Your task to perform on an android device: delete browsing data in the chrome app Image 0: 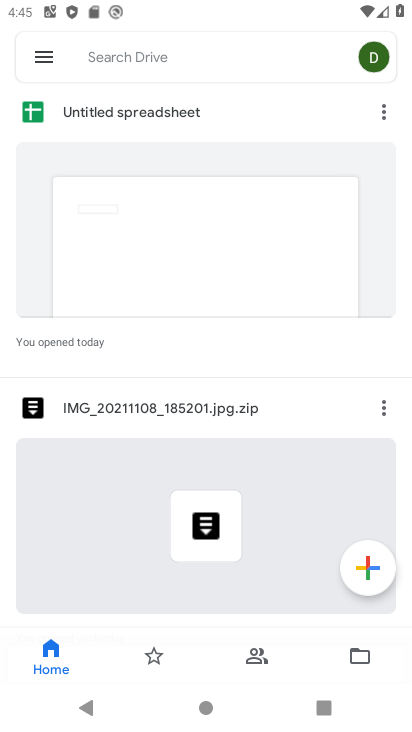
Step 0: press back button
Your task to perform on an android device: delete browsing data in the chrome app Image 1: 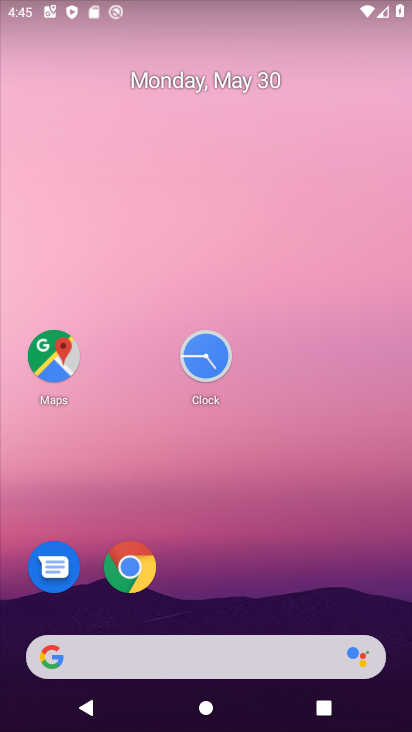
Step 1: drag from (259, 657) to (405, 231)
Your task to perform on an android device: delete browsing data in the chrome app Image 2: 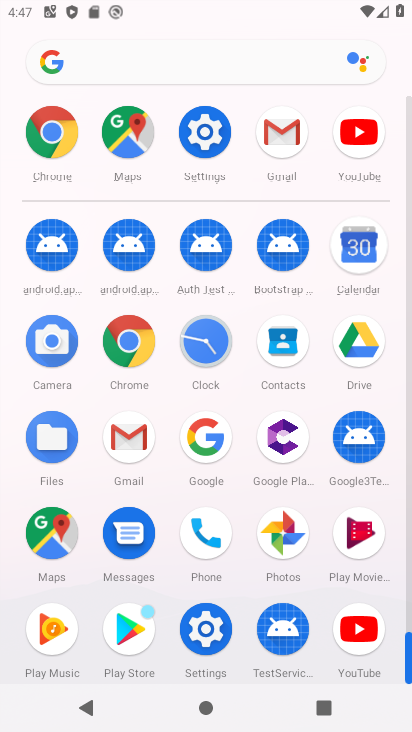
Step 2: click (125, 340)
Your task to perform on an android device: delete browsing data in the chrome app Image 3: 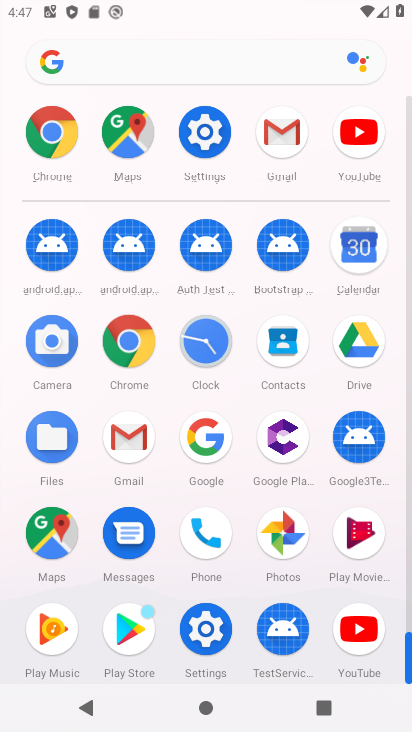
Step 3: click (125, 340)
Your task to perform on an android device: delete browsing data in the chrome app Image 4: 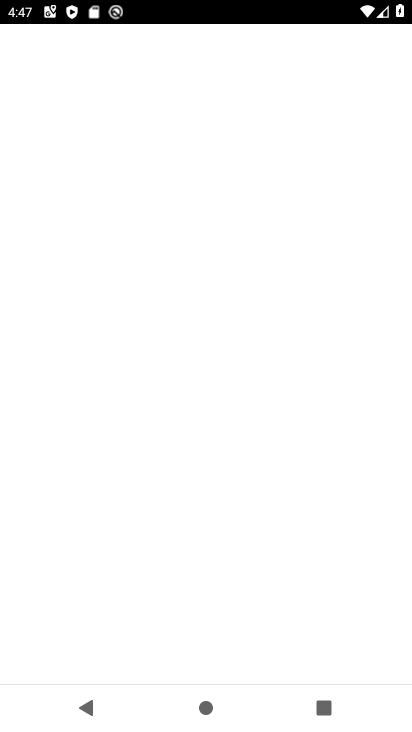
Step 4: click (125, 340)
Your task to perform on an android device: delete browsing data in the chrome app Image 5: 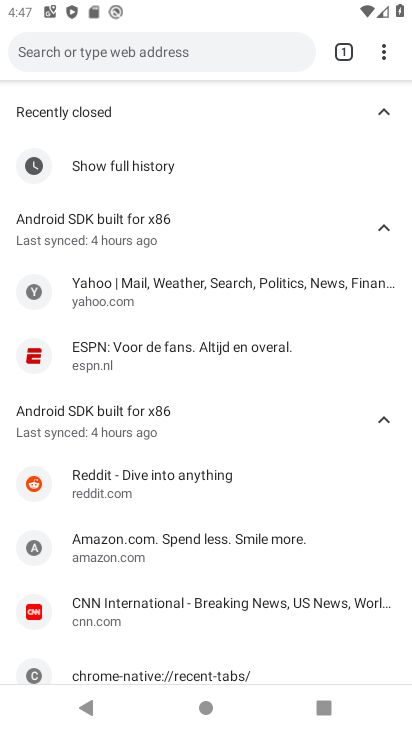
Step 5: press back button
Your task to perform on an android device: delete browsing data in the chrome app Image 6: 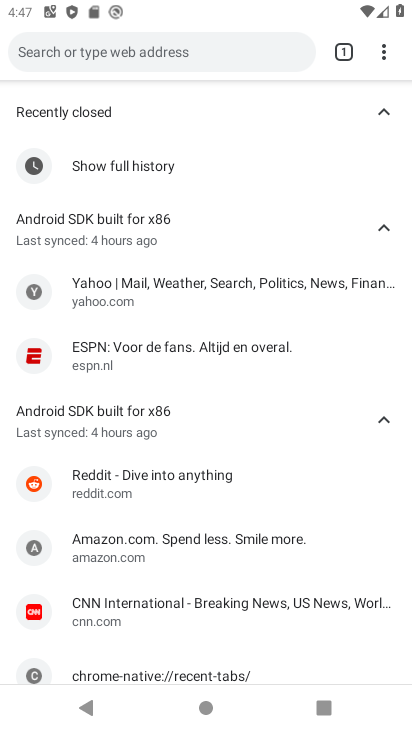
Step 6: press back button
Your task to perform on an android device: delete browsing data in the chrome app Image 7: 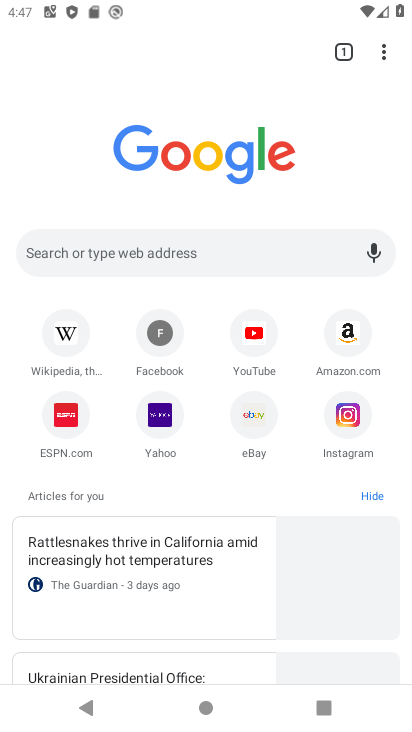
Step 7: press back button
Your task to perform on an android device: delete browsing data in the chrome app Image 8: 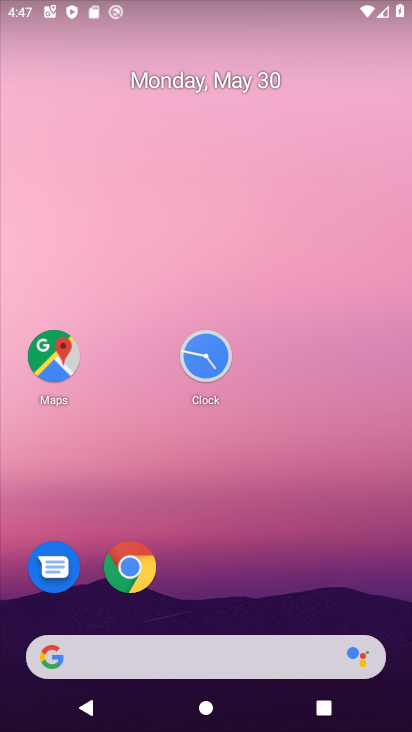
Step 8: click (385, 57)
Your task to perform on an android device: delete browsing data in the chrome app Image 9: 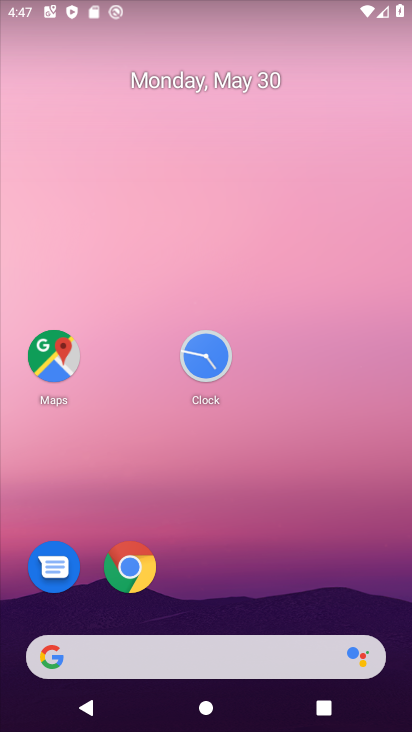
Step 9: drag from (238, 622) to (158, 29)
Your task to perform on an android device: delete browsing data in the chrome app Image 10: 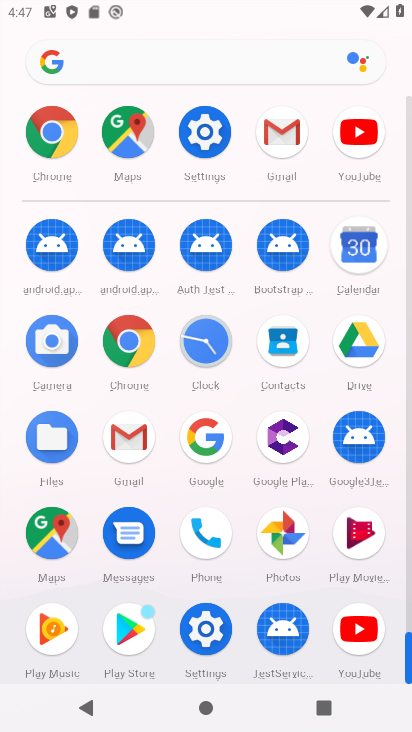
Step 10: click (48, 133)
Your task to perform on an android device: delete browsing data in the chrome app Image 11: 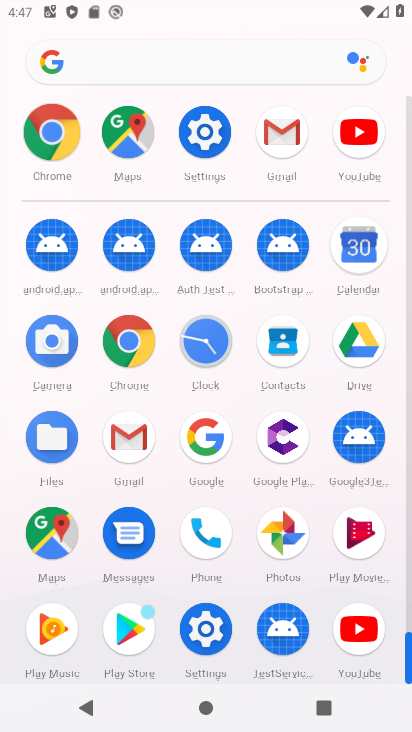
Step 11: click (48, 133)
Your task to perform on an android device: delete browsing data in the chrome app Image 12: 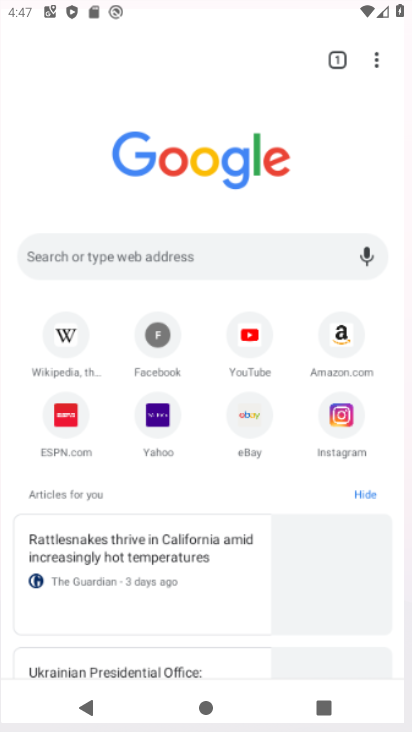
Step 12: click (48, 132)
Your task to perform on an android device: delete browsing data in the chrome app Image 13: 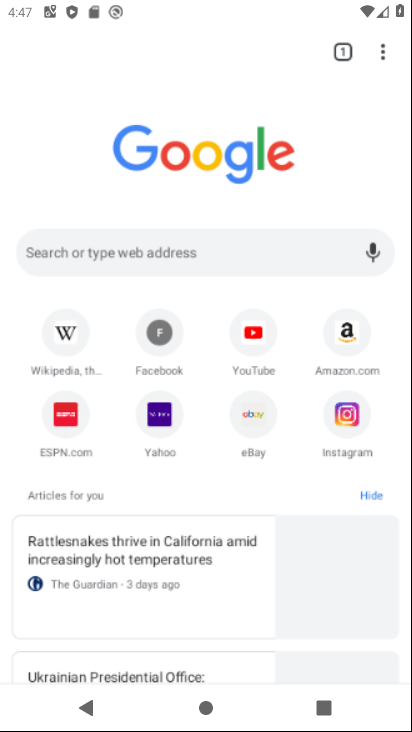
Step 13: click (48, 132)
Your task to perform on an android device: delete browsing data in the chrome app Image 14: 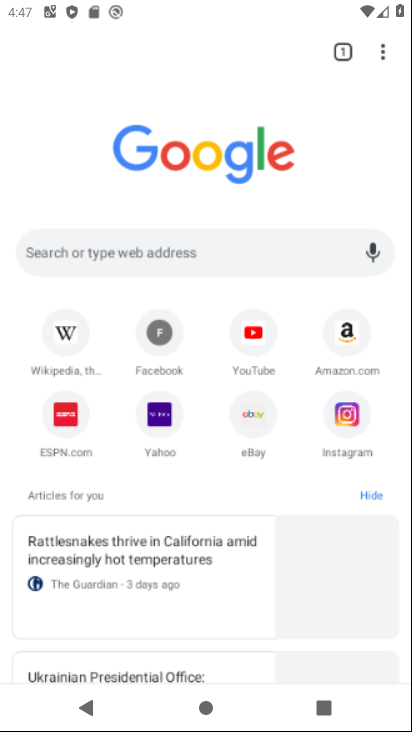
Step 14: click (48, 132)
Your task to perform on an android device: delete browsing data in the chrome app Image 15: 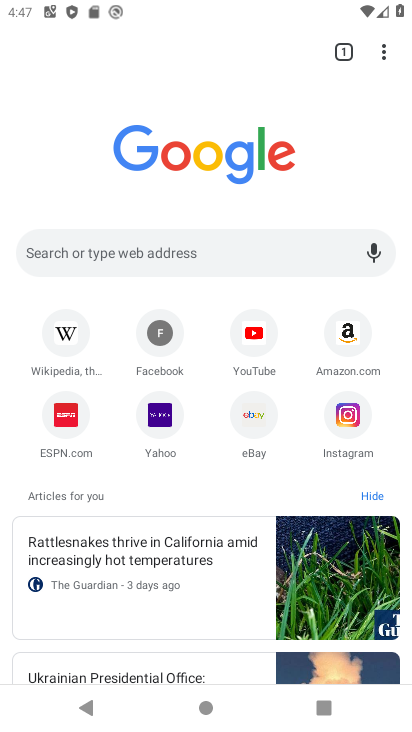
Step 15: drag from (382, 58) to (200, 247)
Your task to perform on an android device: delete browsing data in the chrome app Image 16: 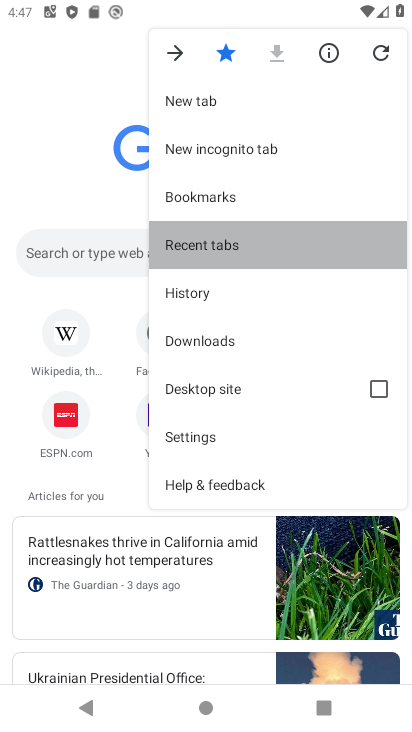
Step 16: click (200, 247)
Your task to perform on an android device: delete browsing data in the chrome app Image 17: 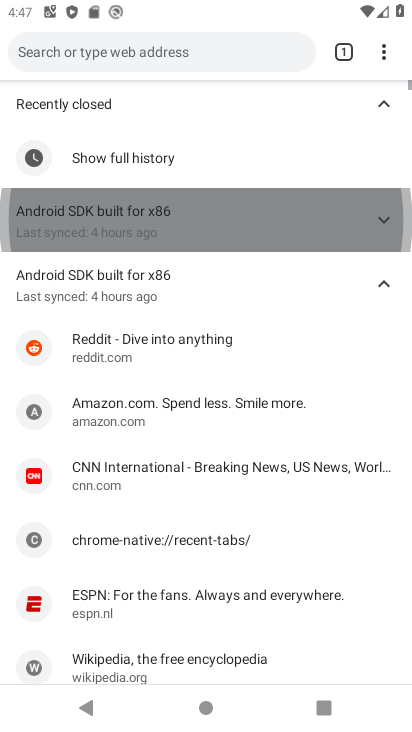
Step 17: click (200, 247)
Your task to perform on an android device: delete browsing data in the chrome app Image 18: 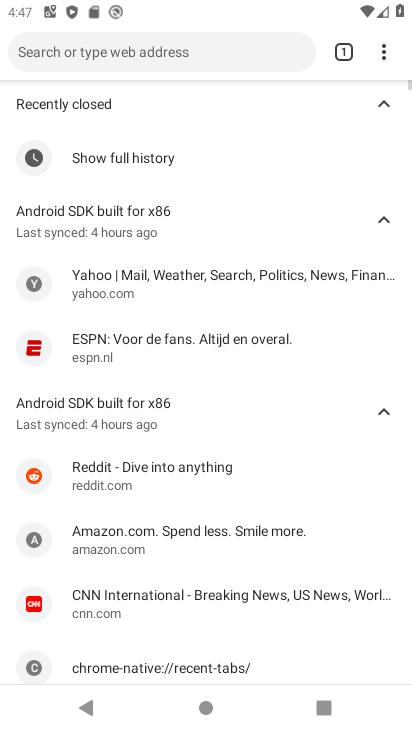
Step 18: press back button
Your task to perform on an android device: delete browsing data in the chrome app Image 19: 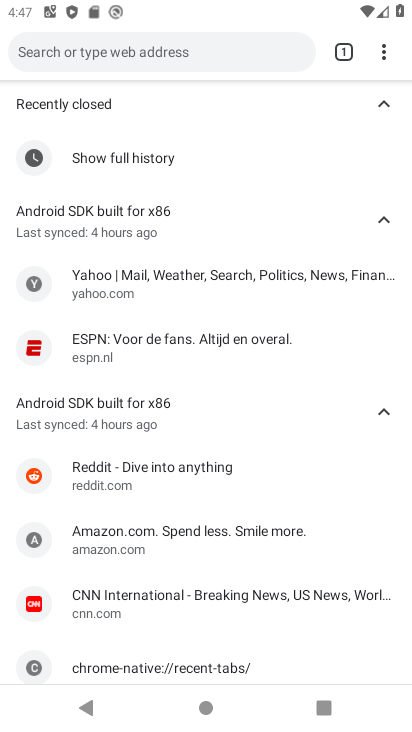
Step 19: press back button
Your task to perform on an android device: delete browsing data in the chrome app Image 20: 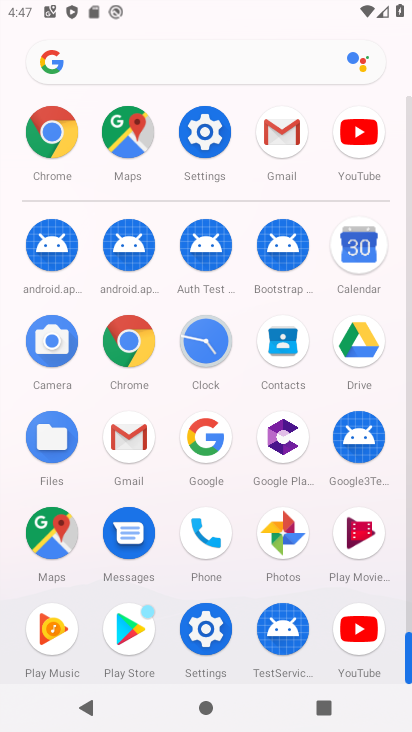
Step 20: click (50, 142)
Your task to perform on an android device: delete browsing data in the chrome app Image 21: 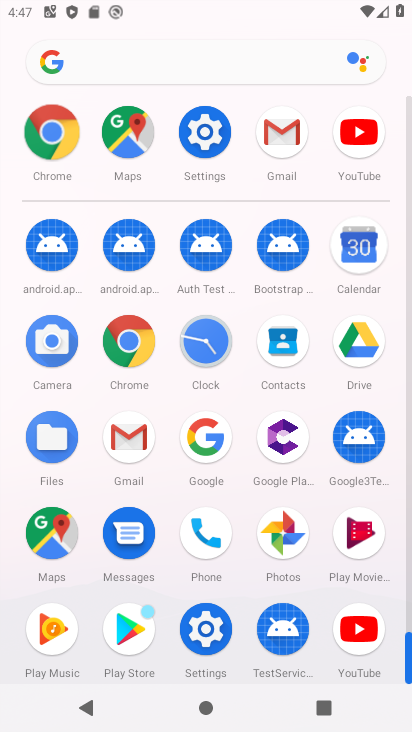
Step 21: click (50, 142)
Your task to perform on an android device: delete browsing data in the chrome app Image 22: 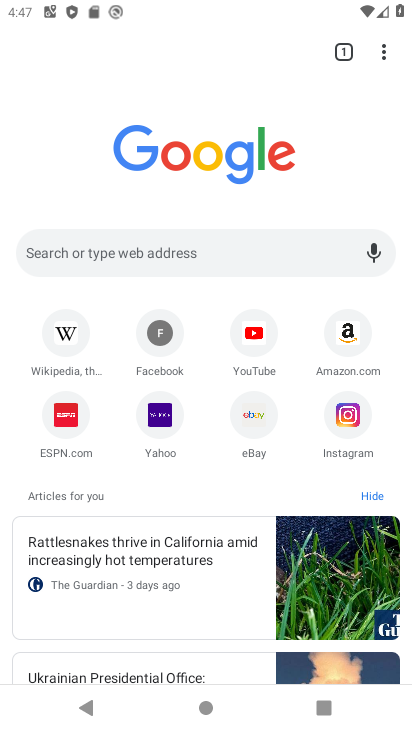
Step 22: drag from (382, 50) to (178, 291)
Your task to perform on an android device: delete browsing data in the chrome app Image 23: 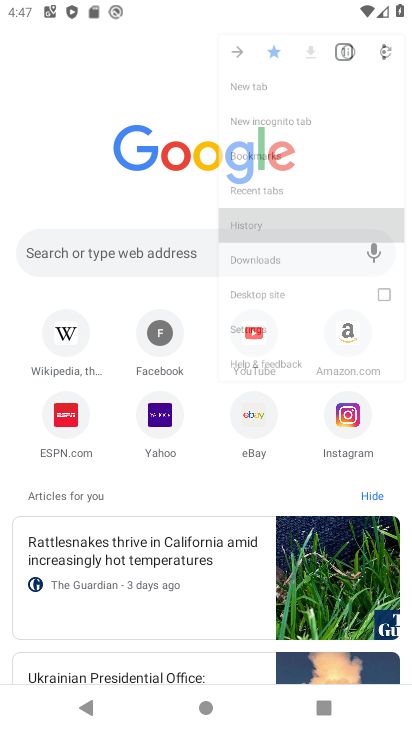
Step 23: click (178, 295)
Your task to perform on an android device: delete browsing data in the chrome app Image 24: 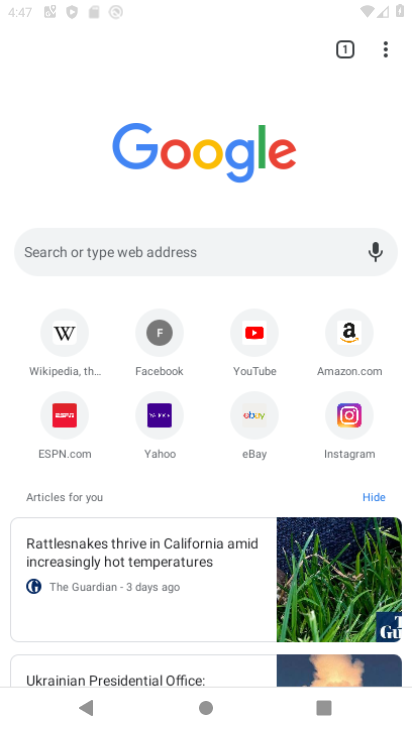
Step 24: click (183, 294)
Your task to perform on an android device: delete browsing data in the chrome app Image 25: 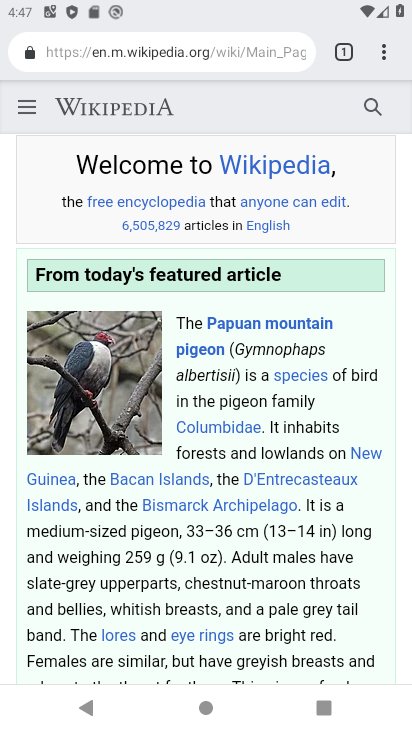
Step 25: click (384, 54)
Your task to perform on an android device: delete browsing data in the chrome app Image 26: 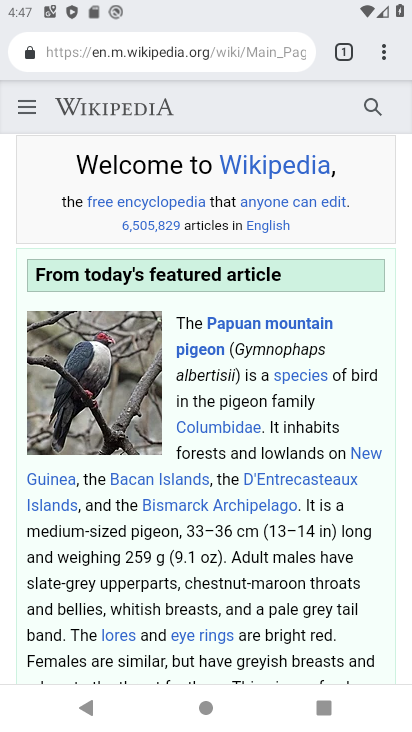
Step 26: drag from (381, 49) to (180, 294)
Your task to perform on an android device: delete browsing data in the chrome app Image 27: 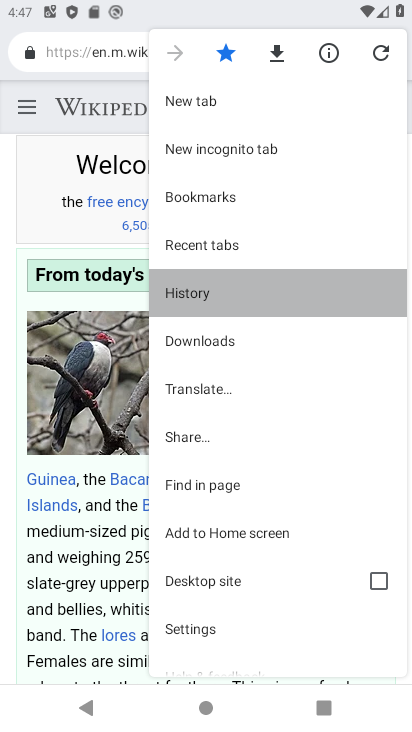
Step 27: click (180, 295)
Your task to perform on an android device: delete browsing data in the chrome app Image 28: 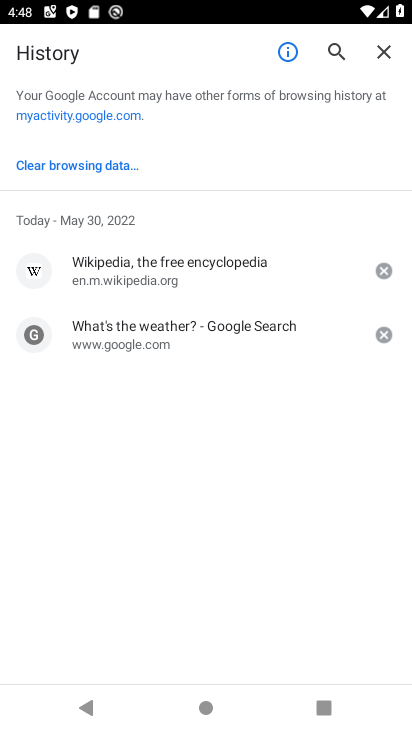
Step 28: click (97, 164)
Your task to perform on an android device: delete browsing data in the chrome app Image 29: 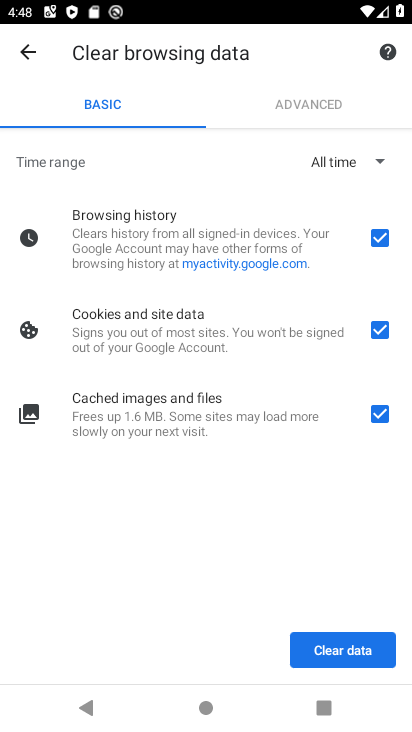
Step 29: click (349, 656)
Your task to perform on an android device: delete browsing data in the chrome app Image 30: 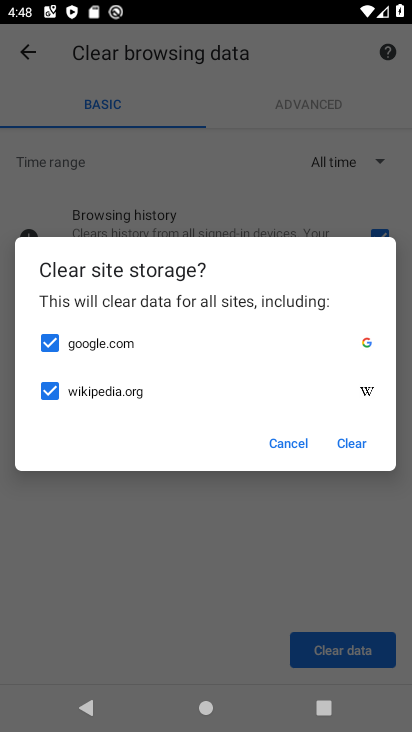
Step 30: click (346, 434)
Your task to perform on an android device: delete browsing data in the chrome app Image 31: 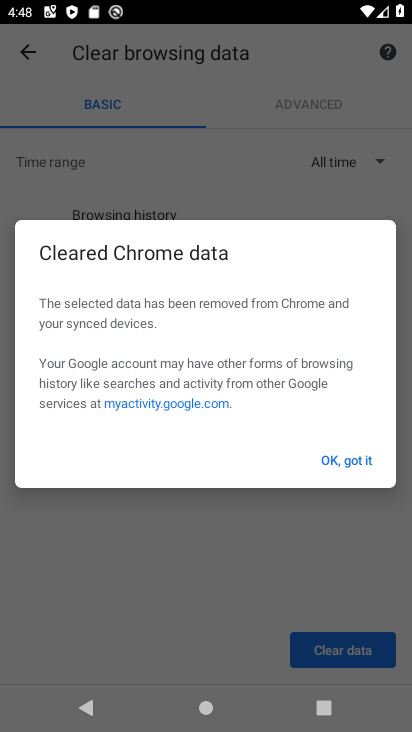
Step 31: task complete